Your task to perform on an android device: turn off picture-in-picture Image 0: 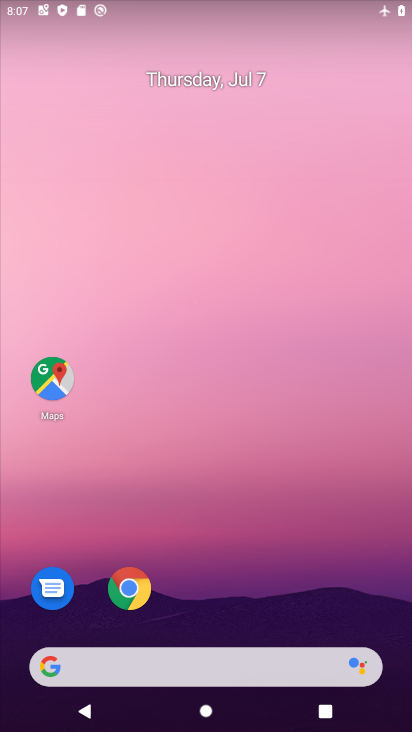
Step 0: drag from (348, 520) to (362, 59)
Your task to perform on an android device: turn off picture-in-picture Image 1: 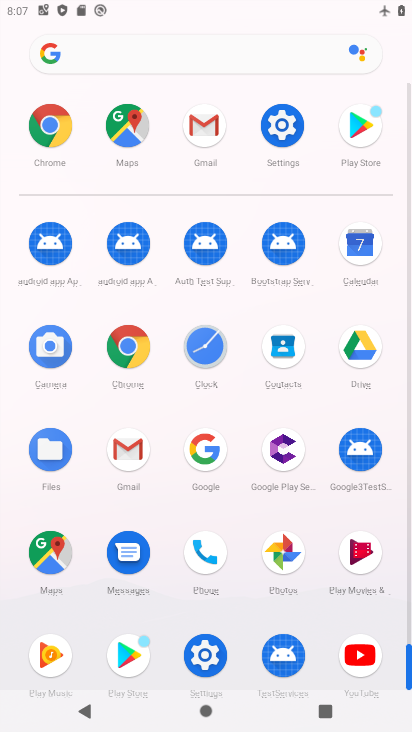
Step 1: click (51, 125)
Your task to perform on an android device: turn off picture-in-picture Image 2: 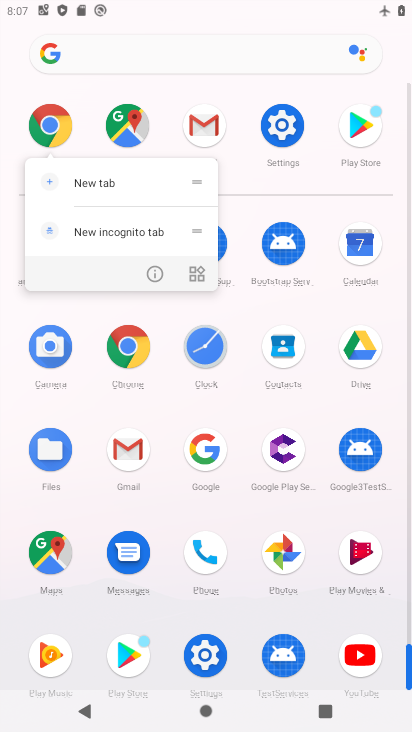
Step 2: click (156, 280)
Your task to perform on an android device: turn off picture-in-picture Image 3: 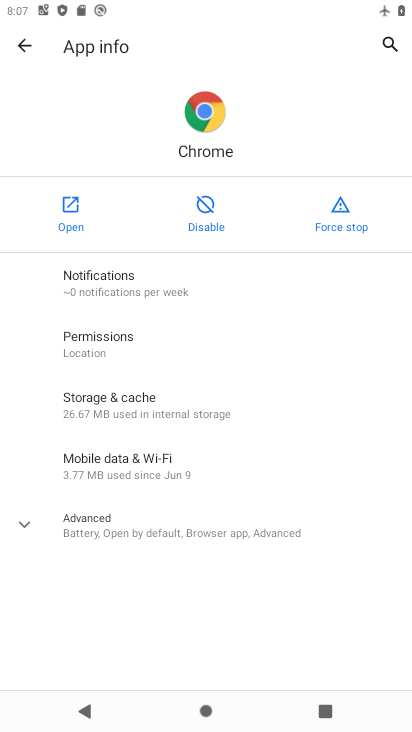
Step 3: click (147, 546)
Your task to perform on an android device: turn off picture-in-picture Image 4: 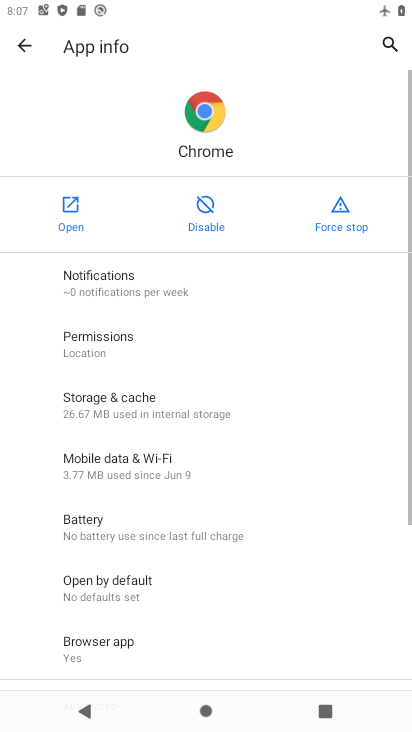
Step 4: drag from (279, 672) to (313, 266)
Your task to perform on an android device: turn off picture-in-picture Image 5: 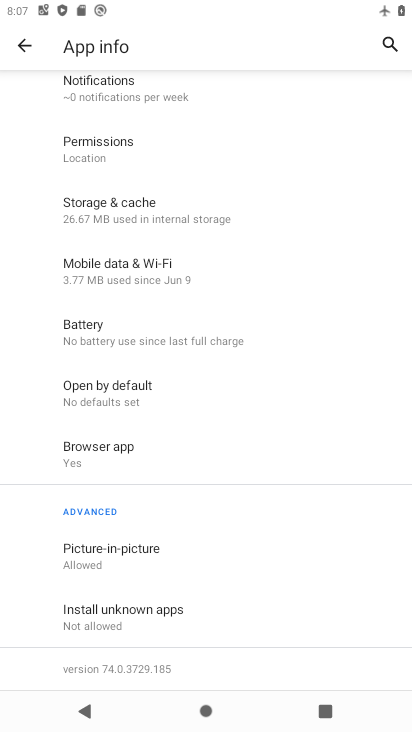
Step 5: click (122, 539)
Your task to perform on an android device: turn off picture-in-picture Image 6: 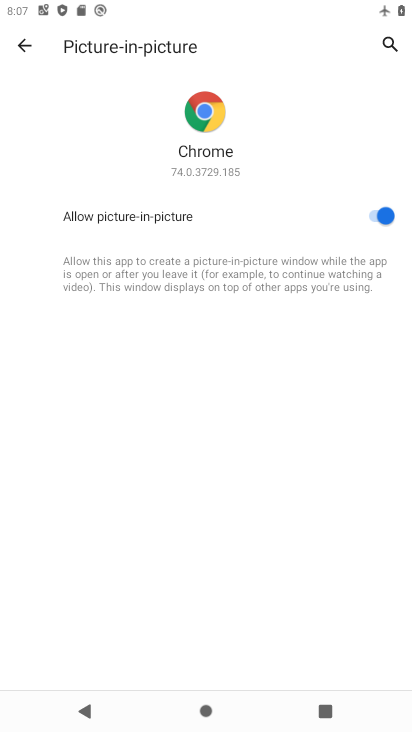
Step 6: click (369, 220)
Your task to perform on an android device: turn off picture-in-picture Image 7: 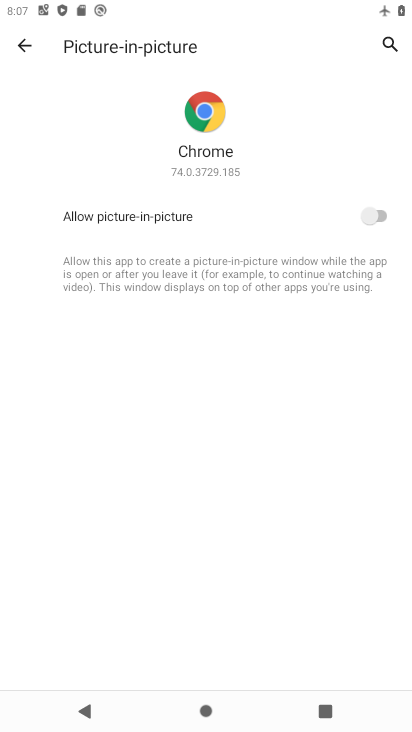
Step 7: task complete